Your task to perform on an android device: Open Google Chrome and open the bookmarks view Image 0: 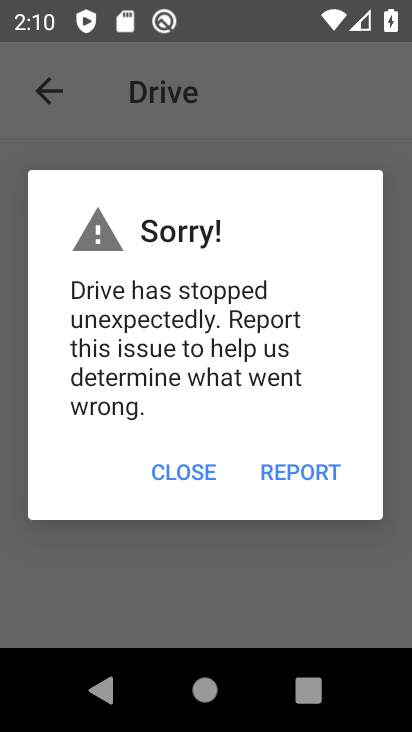
Step 0: press home button
Your task to perform on an android device: Open Google Chrome and open the bookmarks view Image 1: 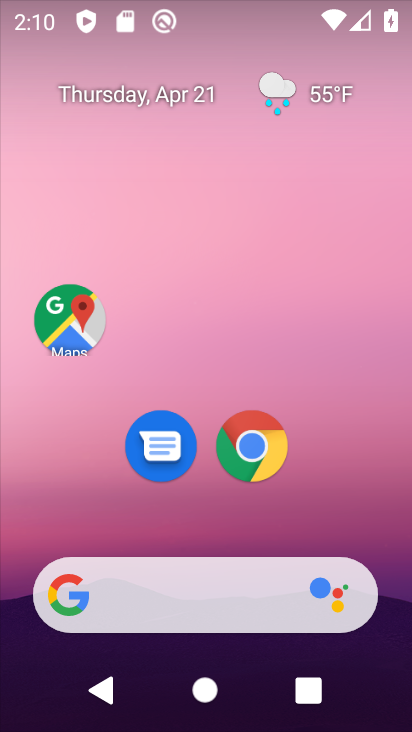
Step 1: click (252, 446)
Your task to perform on an android device: Open Google Chrome and open the bookmarks view Image 2: 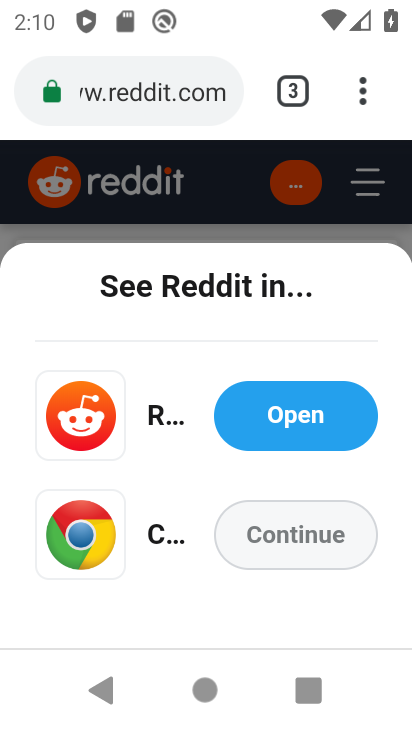
Step 2: drag from (363, 91) to (140, 432)
Your task to perform on an android device: Open Google Chrome and open the bookmarks view Image 3: 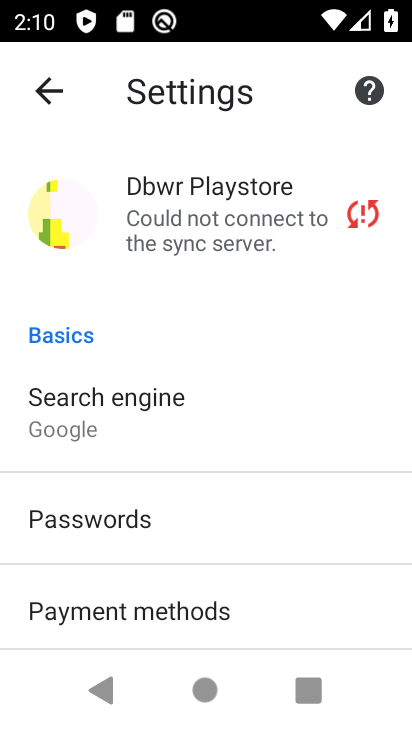
Step 3: click (45, 92)
Your task to perform on an android device: Open Google Chrome and open the bookmarks view Image 4: 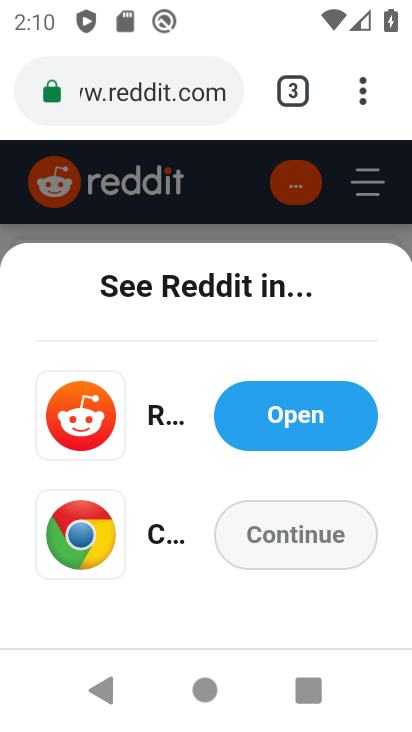
Step 4: task complete